Your task to perform on an android device: What's on my calendar tomorrow? Image 0: 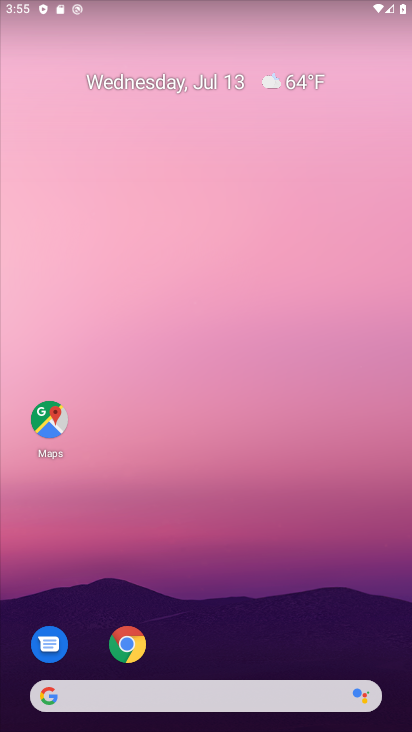
Step 0: drag from (245, 528) to (227, 177)
Your task to perform on an android device: What's on my calendar tomorrow? Image 1: 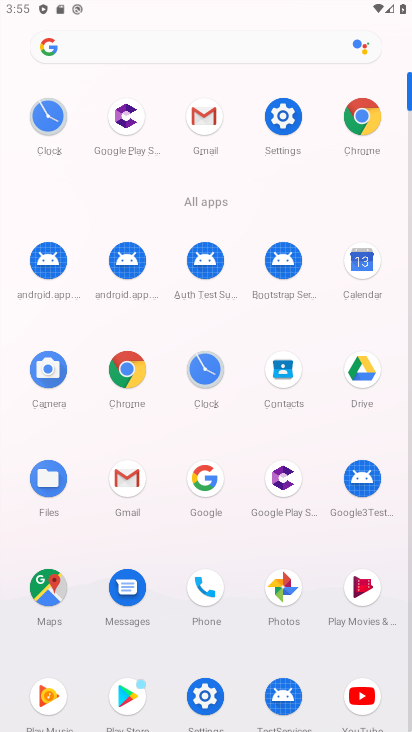
Step 1: click (358, 261)
Your task to perform on an android device: What's on my calendar tomorrow? Image 2: 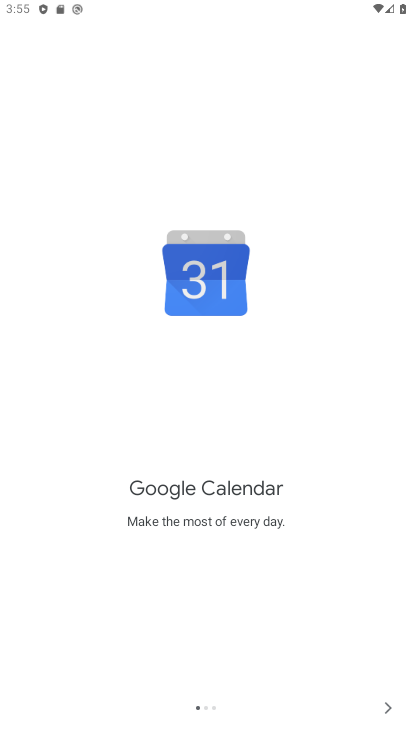
Step 2: click (387, 705)
Your task to perform on an android device: What's on my calendar tomorrow? Image 3: 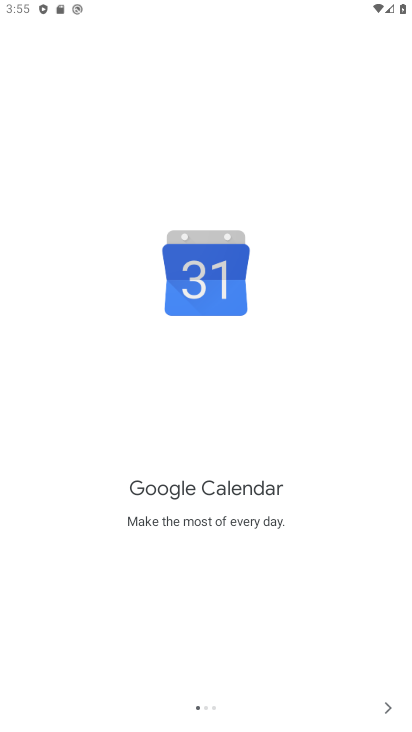
Step 3: click (387, 705)
Your task to perform on an android device: What's on my calendar tomorrow? Image 4: 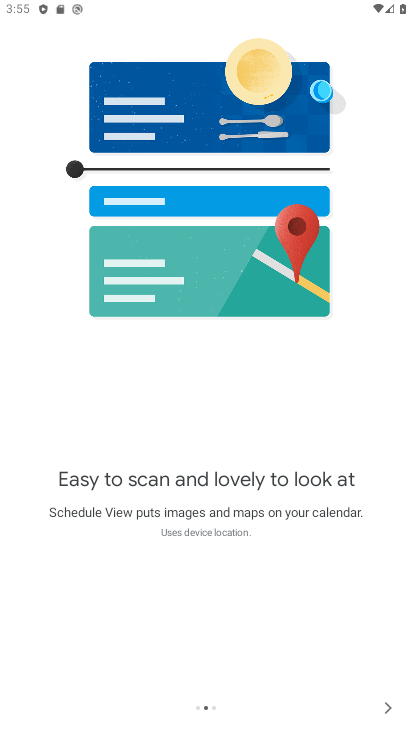
Step 4: click (387, 705)
Your task to perform on an android device: What's on my calendar tomorrow? Image 5: 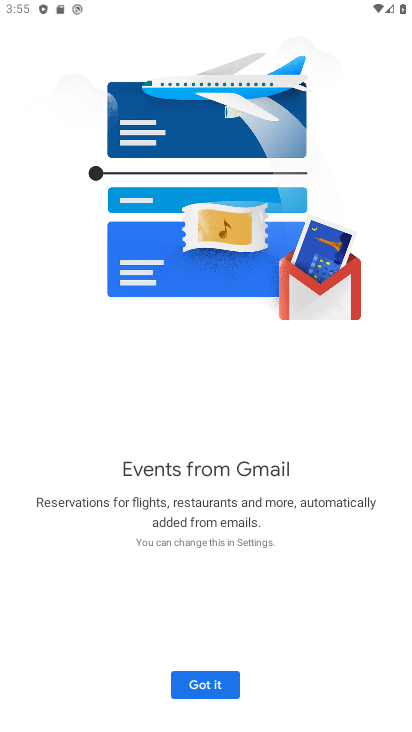
Step 5: click (204, 678)
Your task to perform on an android device: What's on my calendar tomorrow? Image 6: 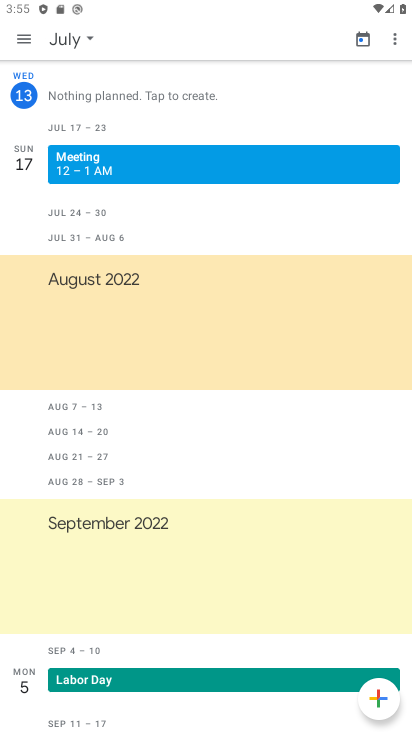
Step 6: click (20, 38)
Your task to perform on an android device: What's on my calendar tomorrow? Image 7: 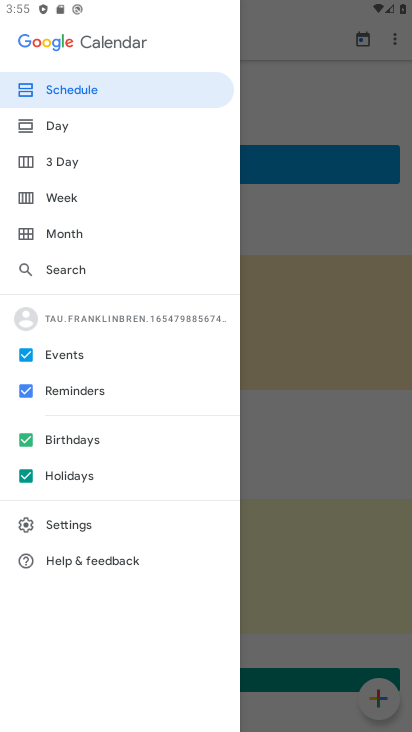
Step 7: click (51, 119)
Your task to perform on an android device: What's on my calendar tomorrow? Image 8: 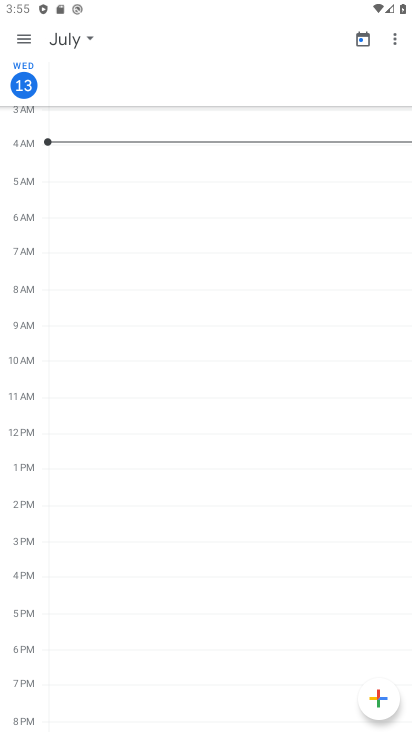
Step 8: click (88, 38)
Your task to perform on an android device: What's on my calendar tomorrow? Image 9: 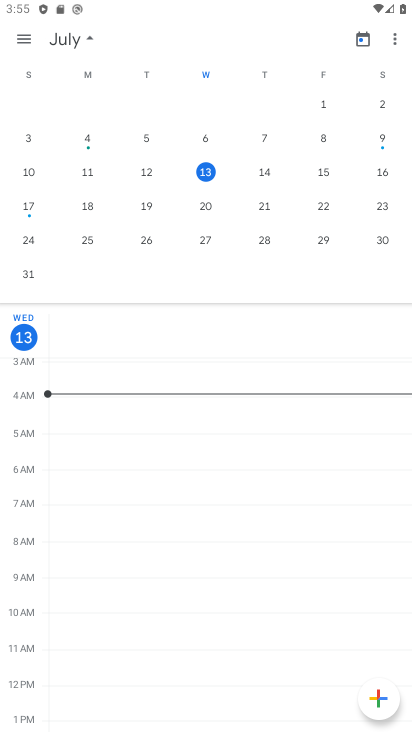
Step 9: click (266, 169)
Your task to perform on an android device: What's on my calendar tomorrow? Image 10: 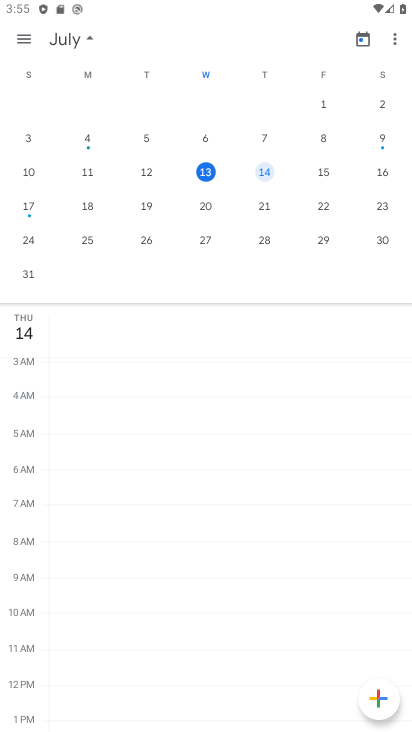
Step 10: task complete